Your task to perform on an android device: turn on priority inbox in the gmail app Image 0: 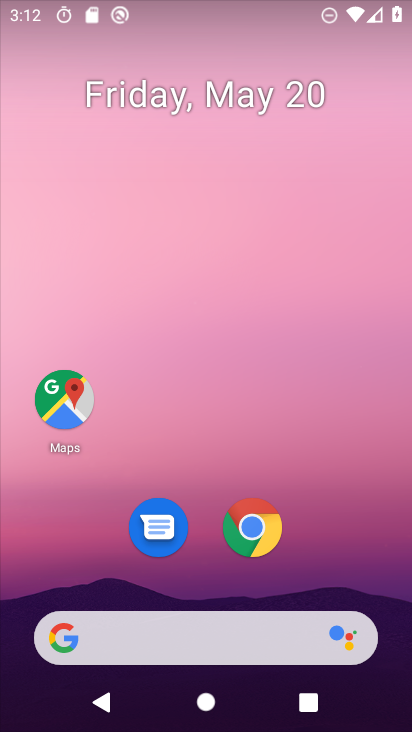
Step 0: click (245, 532)
Your task to perform on an android device: turn on priority inbox in the gmail app Image 1: 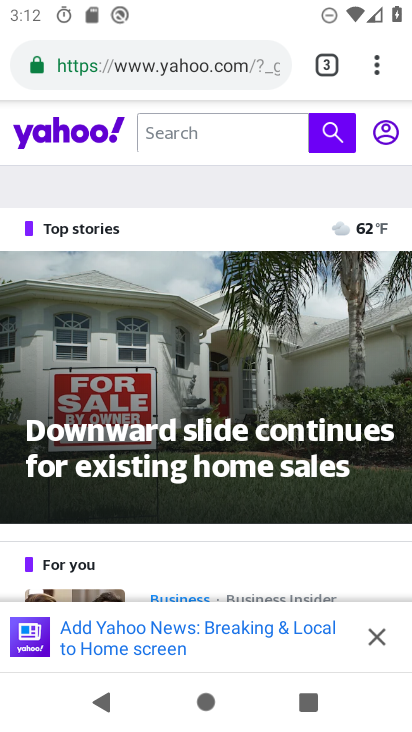
Step 1: press back button
Your task to perform on an android device: turn on priority inbox in the gmail app Image 2: 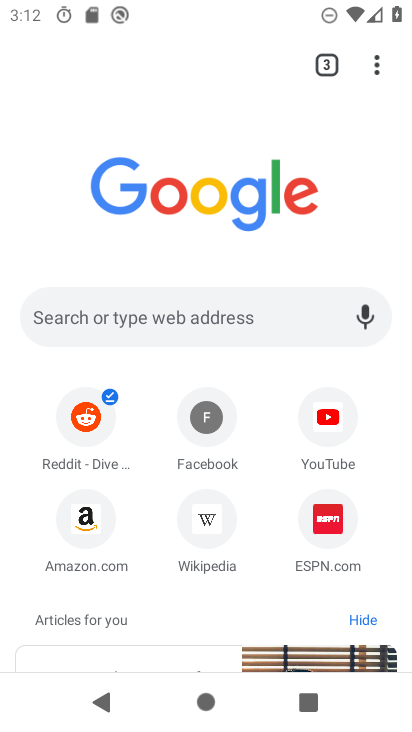
Step 2: press back button
Your task to perform on an android device: turn on priority inbox in the gmail app Image 3: 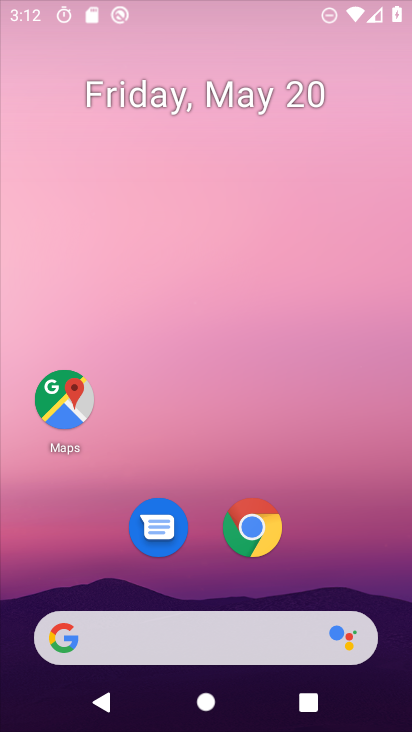
Step 3: drag from (172, 565) to (250, 57)
Your task to perform on an android device: turn on priority inbox in the gmail app Image 4: 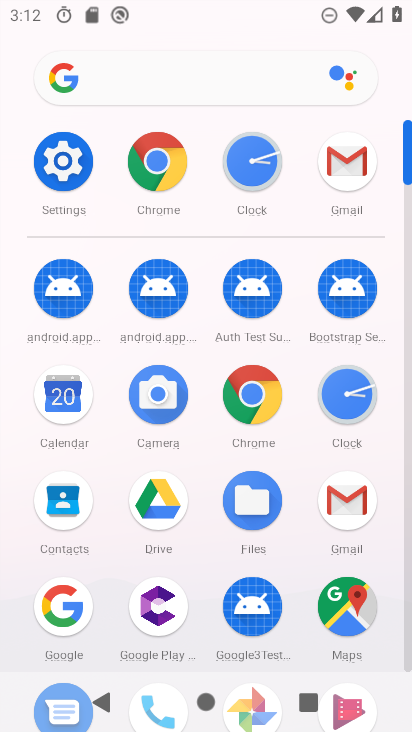
Step 4: click (348, 162)
Your task to perform on an android device: turn on priority inbox in the gmail app Image 5: 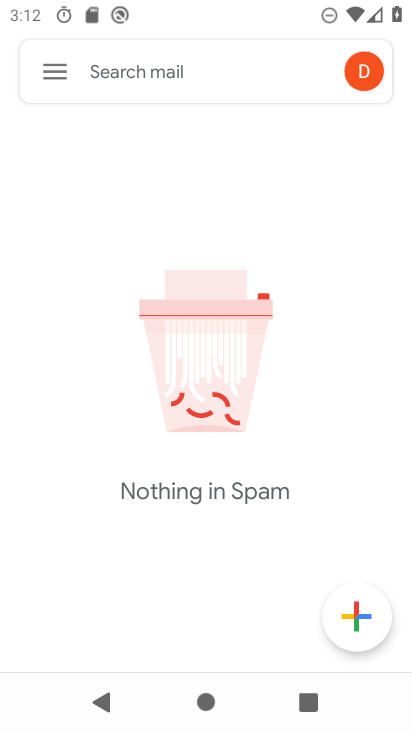
Step 5: click (56, 65)
Your task to perform on an android device: turn on priority inbox in the gmail app Image 6: 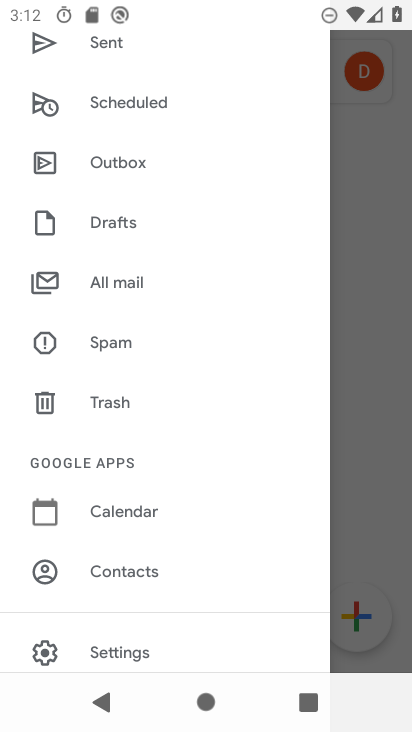
Step 6: click (122, 658)
Your task to perform on an android device: turn on priority inbox in the gmail app Image 7: 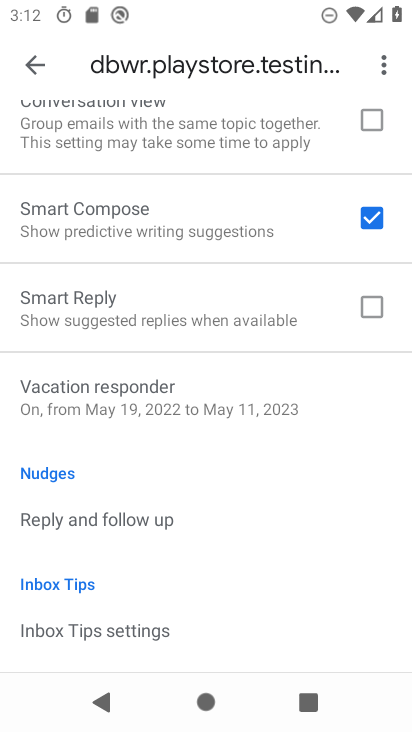
Step 7: drag from (203, 139) to (203, 706)
Your task to perform on an android device: turn on priority inbox in the gmail app Image 8: 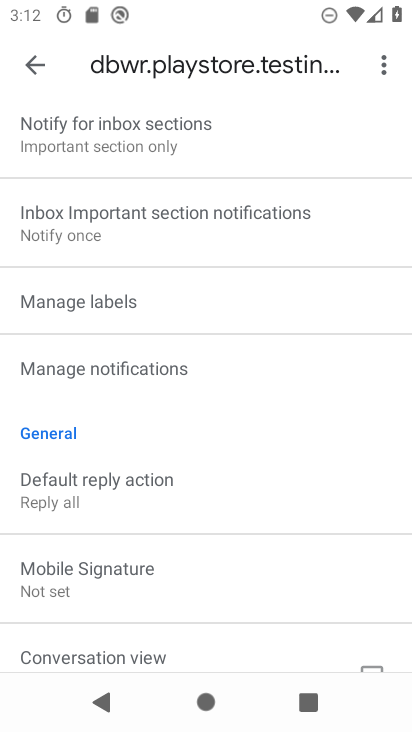
Step 8: drag from (172, 164) to (141, 657)
Your task to perform on an android device: turn on priority inbox in the gmail app Image 9: 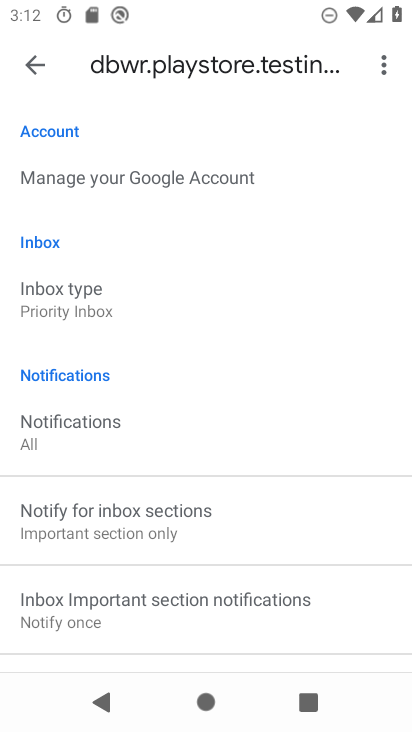
Step 9: click (64, 292)
Your task to perform on an android device: turn on priority inbox in the gmail app Image 10: 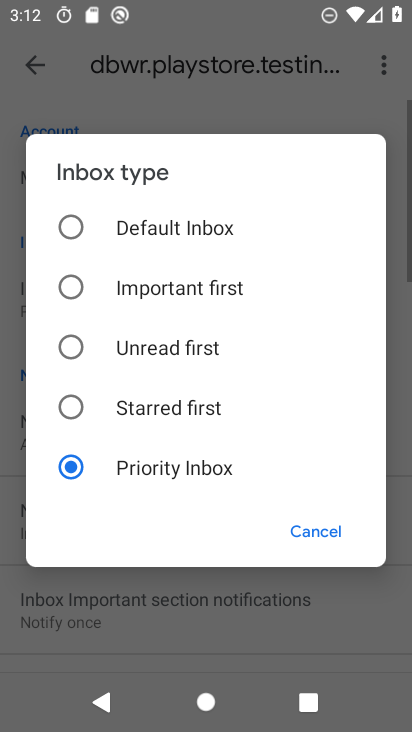
Step 10: click (77, 474)
Your task to perform on an android device: turn on priority inbox in the gmail app Image 11: 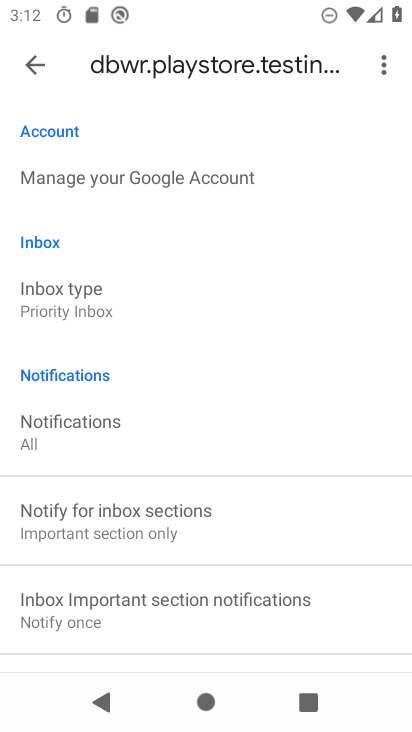
Step 11: task complete